Your task to perform on an android device: turn off notifications settings in the gmail app Image 0: 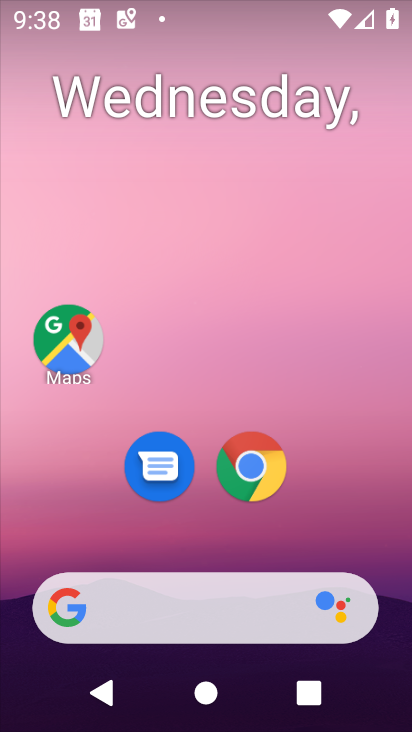
Step 0: drag from (333, 537) to (333, 321)
Your task to perform on an android device: turn off notifications settings in the gmail app Image 1: 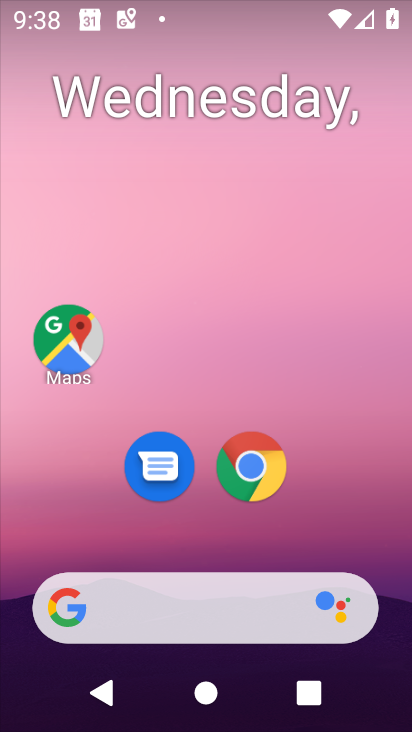
Step 1: drag from (304, 530) to (330, 200)
Your task to perform on an android device: turn off notifications settings in the gmail app Image 2: 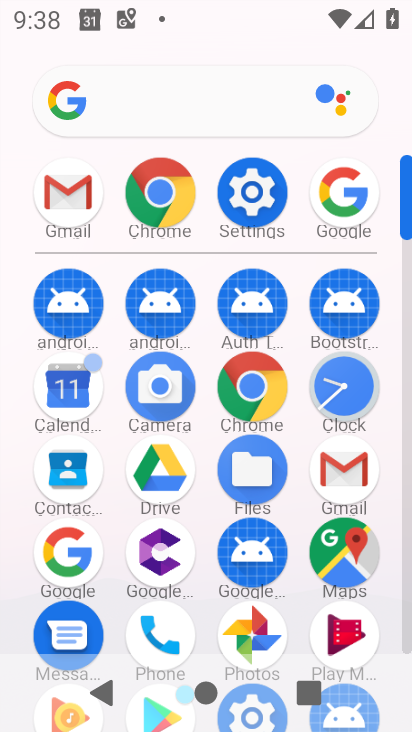
Step 2: click (73, 192)
Your task to perform on an android device: turn off notifications settings in the gmail app Image 3: 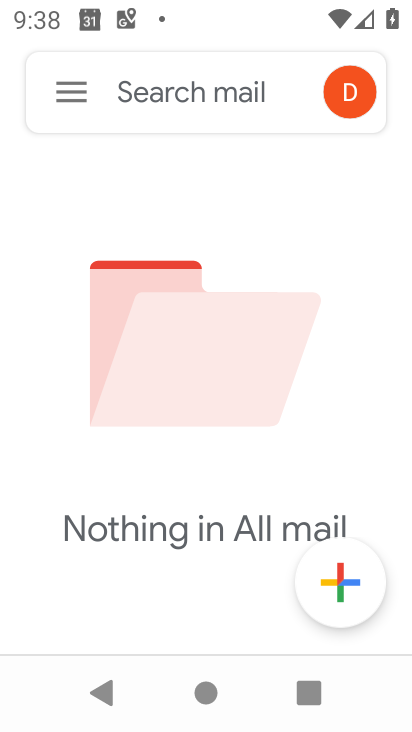
Step 3: click (73, 85)
Your task to perform on an android device: turn off notifications settings in the gmail app Image 4: 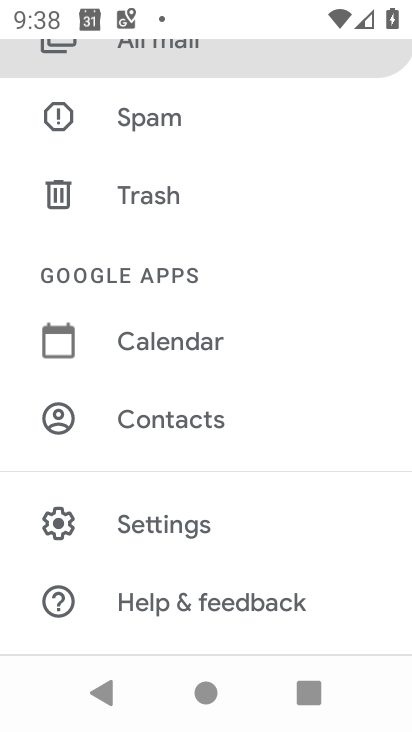
Step 4: click (178, 518)
Your task to perform on an android device: turn off notifications settings in the gmail app Image 5: 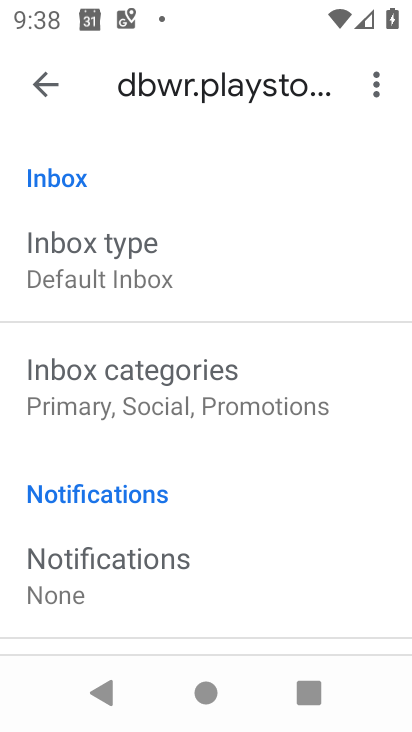
Step 5: click (103, 586)
Your task to perform on an android device: turn off notifications settings in the gmail app Image 6: 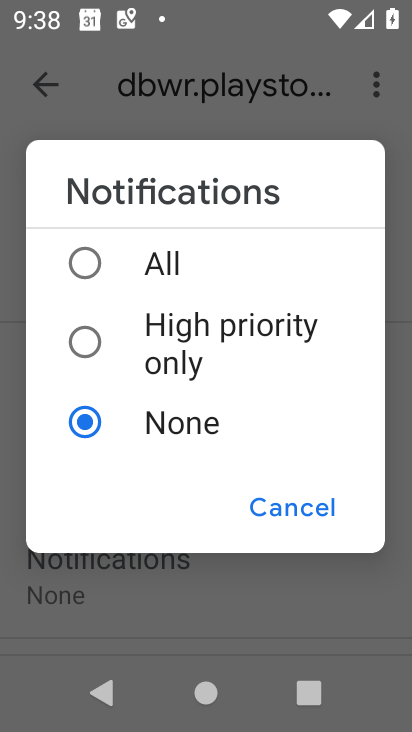
Step 6: task complete